Your task to perform on an android device: Open Yahoo.com Image 0: 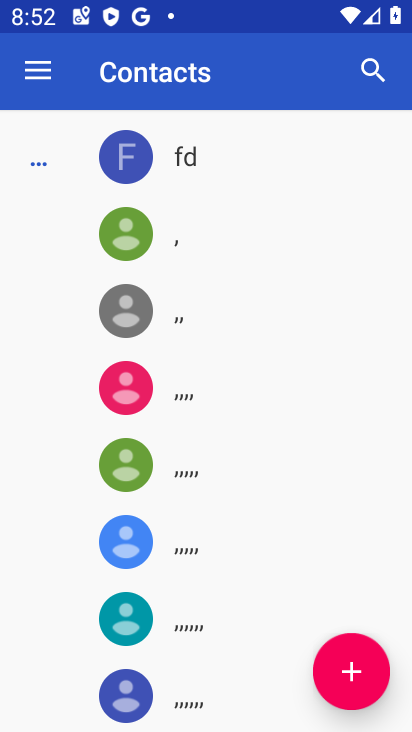
Step 0: press home button
Your task to perform on an android device: Open Yahoo.com Image 1: 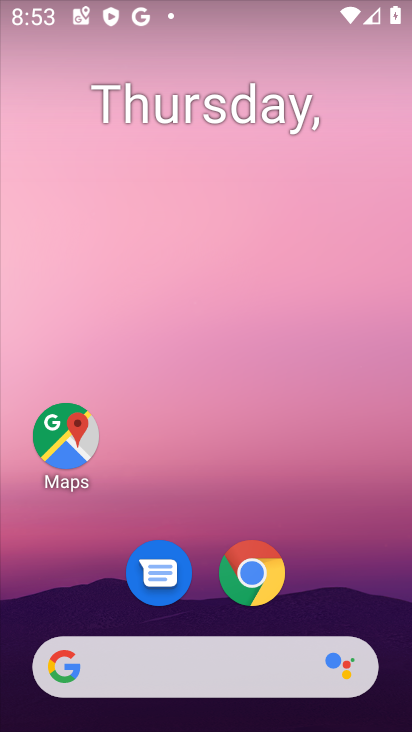
Step 1: drag from (332, 600) to (293, 161)
Your task to perform on an android device: Open Yahoo.com Image 2: 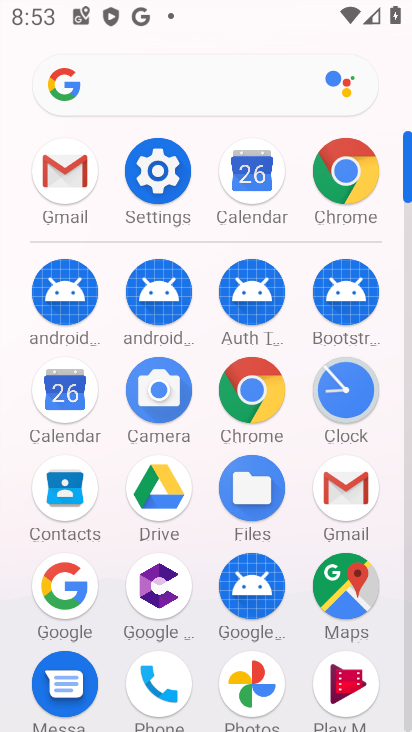
Step 2: click (263, 390)
Your task to perform on an android device: Open Yahoo.com Image 3: 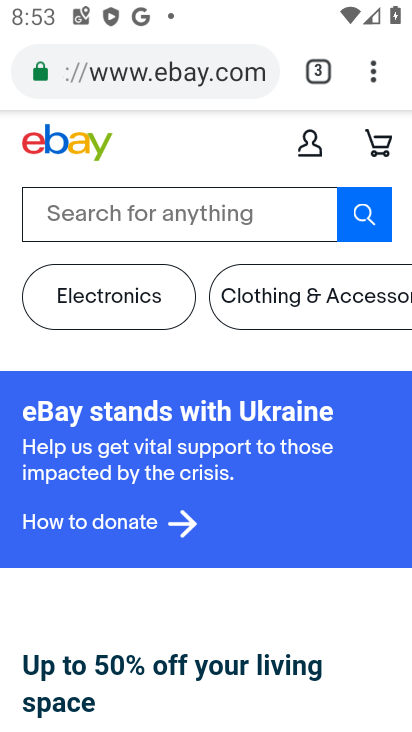
Step 3: click (196, 75)
Your task to perform on an android device: Open Yahoo.com Image 4: 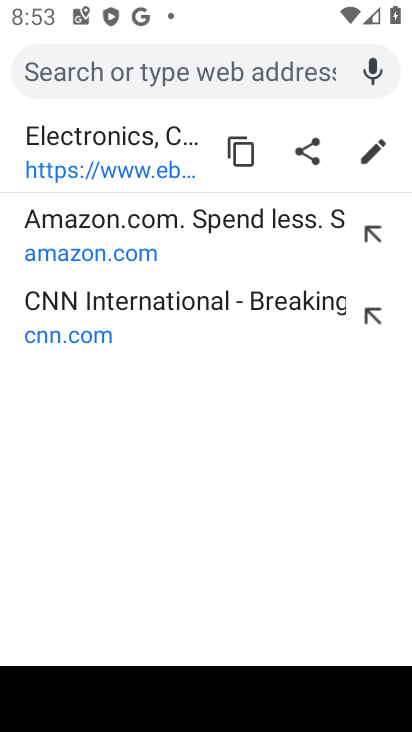
Step 4: type "yahoo.com"
Your task to perform on an android device: Open Yahoo.com Image 5: 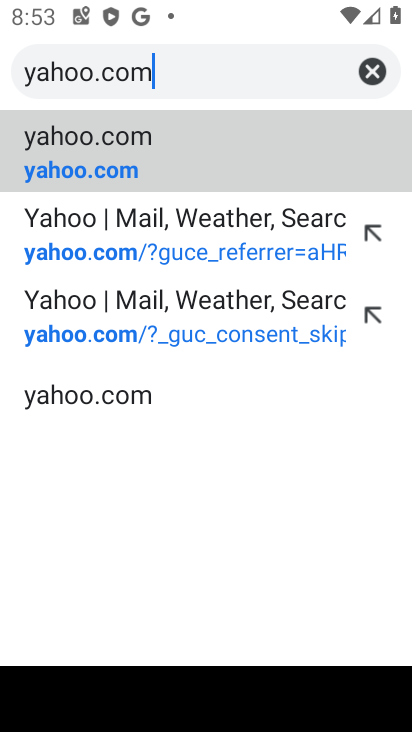
Step 5: click (84, 151)
Your task to perform on an android device: Open Yahoo.com Image 6: 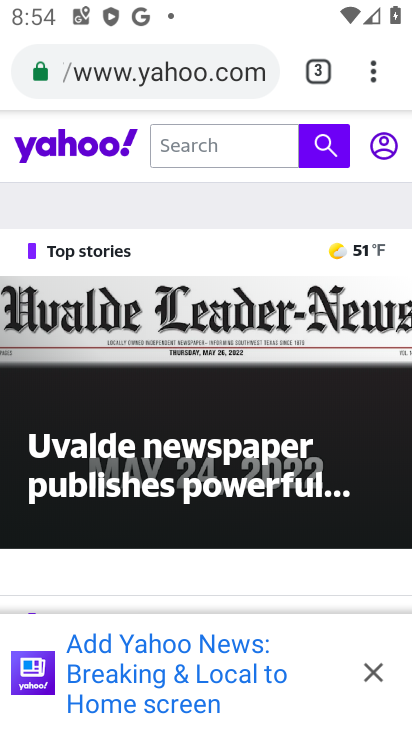
Step 6: task complete